Your task to perform on an android device: Open Google Maps Image 0: 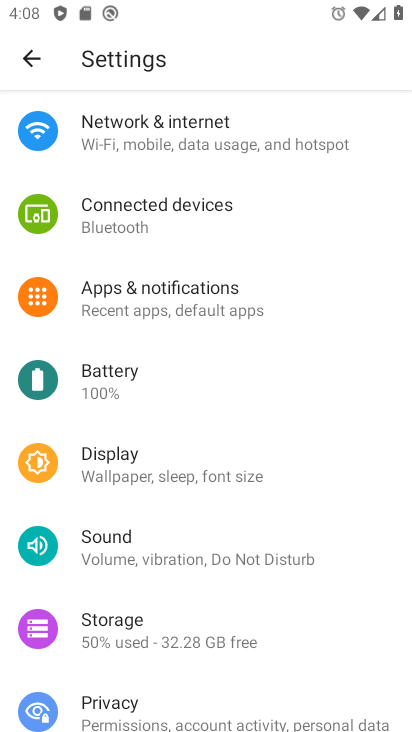
Step 0: press home button
Your task to perform on an android device: Open Google Maps Image 1: 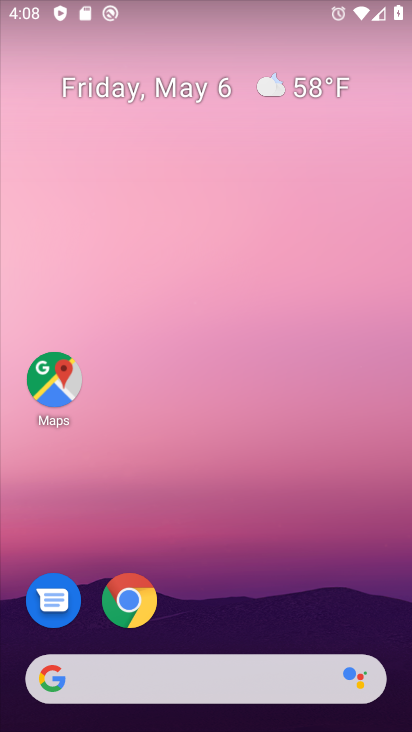
Step 1: click (65, 396)
Your task to perform on an android device: Open Google Maps Image 2: 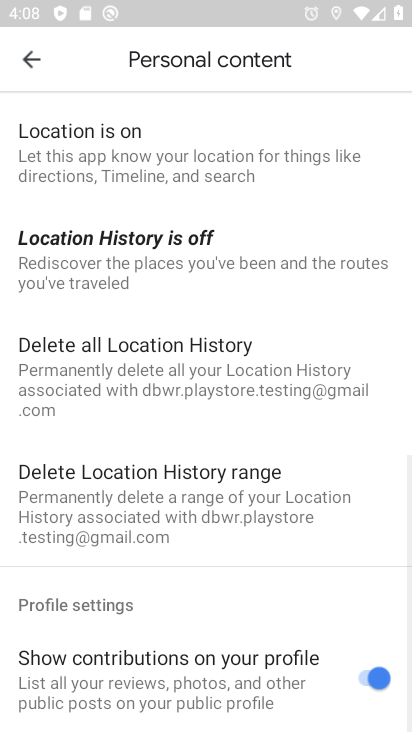
Step 2: click (22, 58)
Your task to perform on an android device: Open Google Maps Image 3: 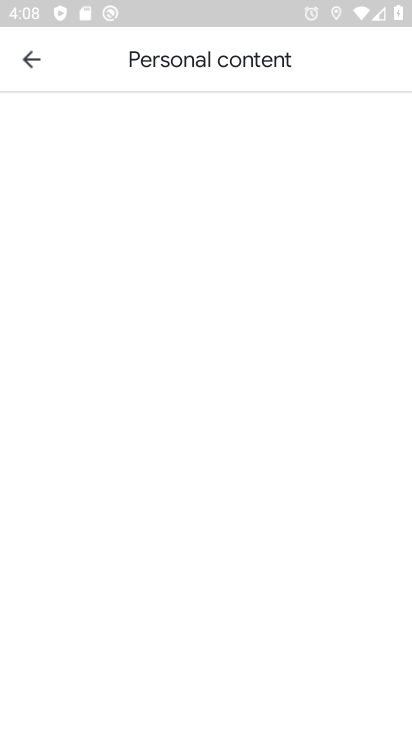
Step 3: click (27, 64)
Your task to perform on an android device: Open Google Maps Image 4: 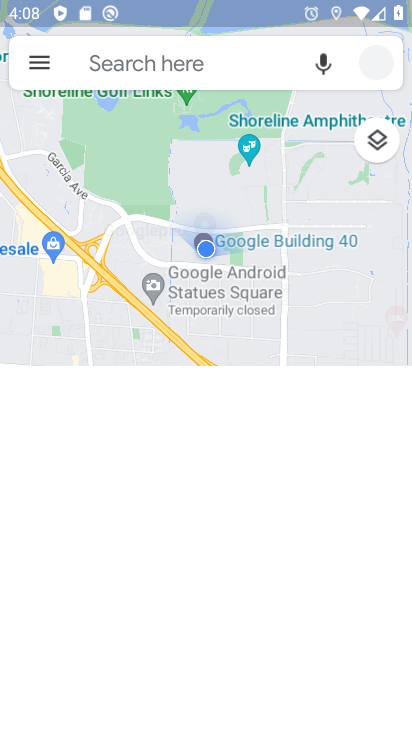
Step 4: click (27, 64)
Your task to perform on an android device: Open Google Maps Image 5: 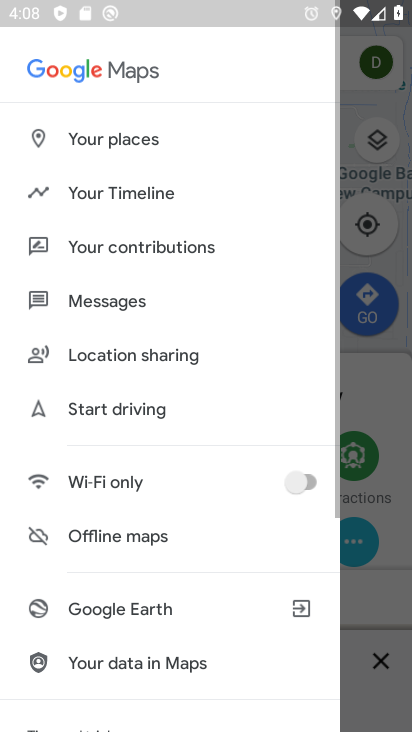
Step 5: click (198, 72)
Your task to perform on an android device: Open Google Maps Image 6: 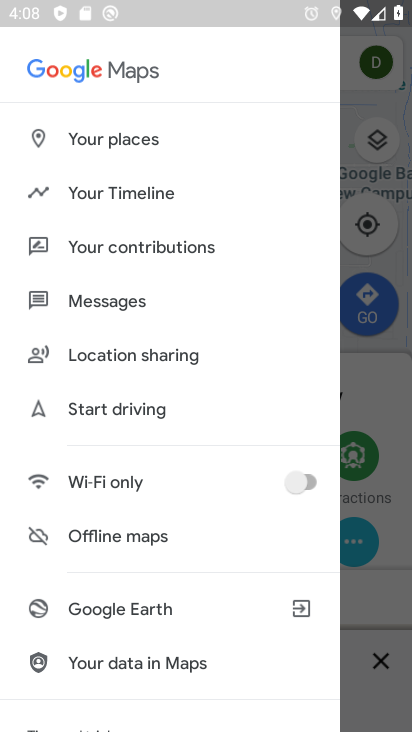
Step 6: task complete